Your task to perform on an android device: turn notification dots on Image 0: 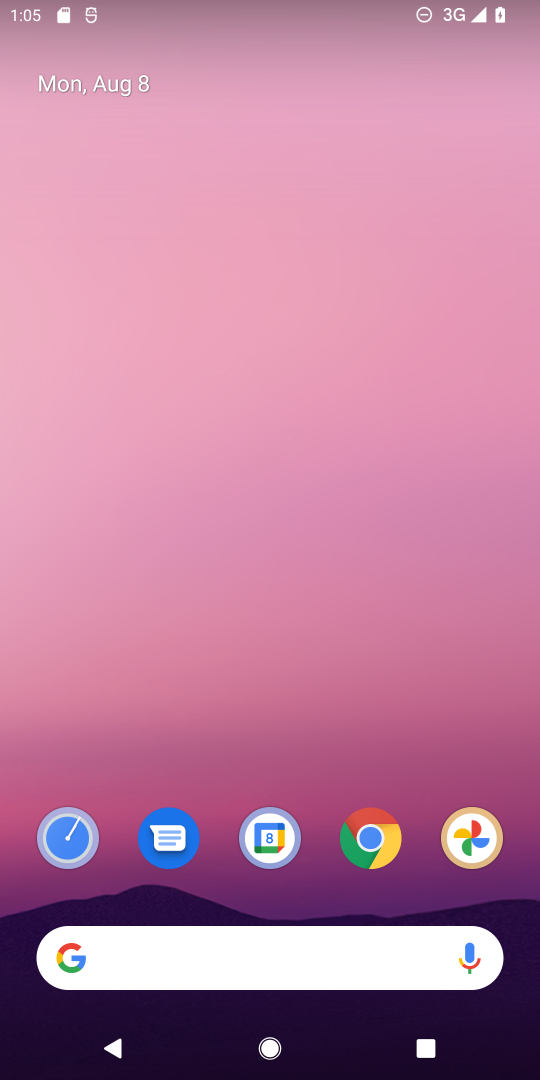
Step 0: press home button
Your task to perform on an android device: turn notification dots on Image 1: 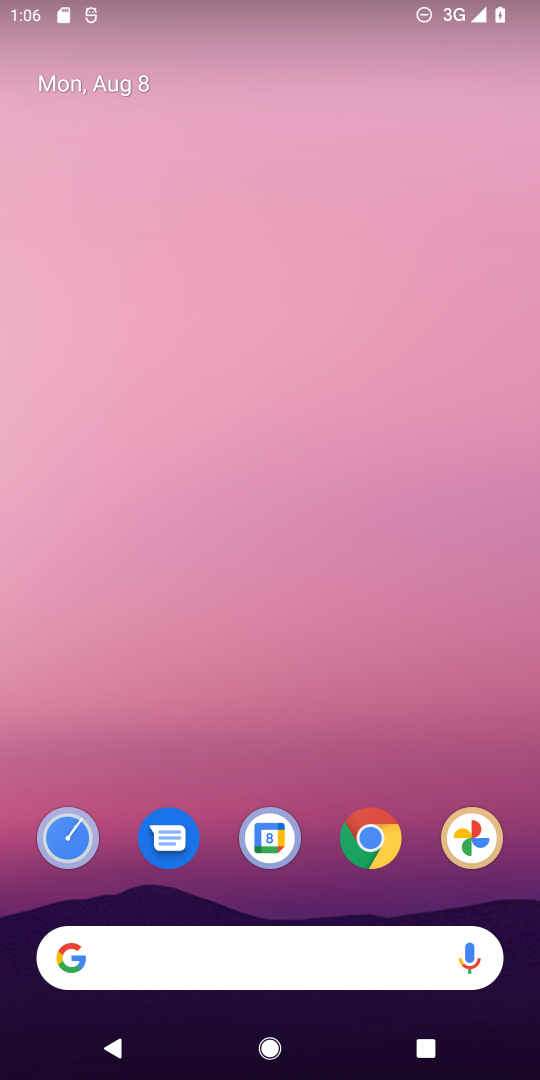
Step 1: press home button
Your task to perform on an android device: turn notification dots on Image 2: 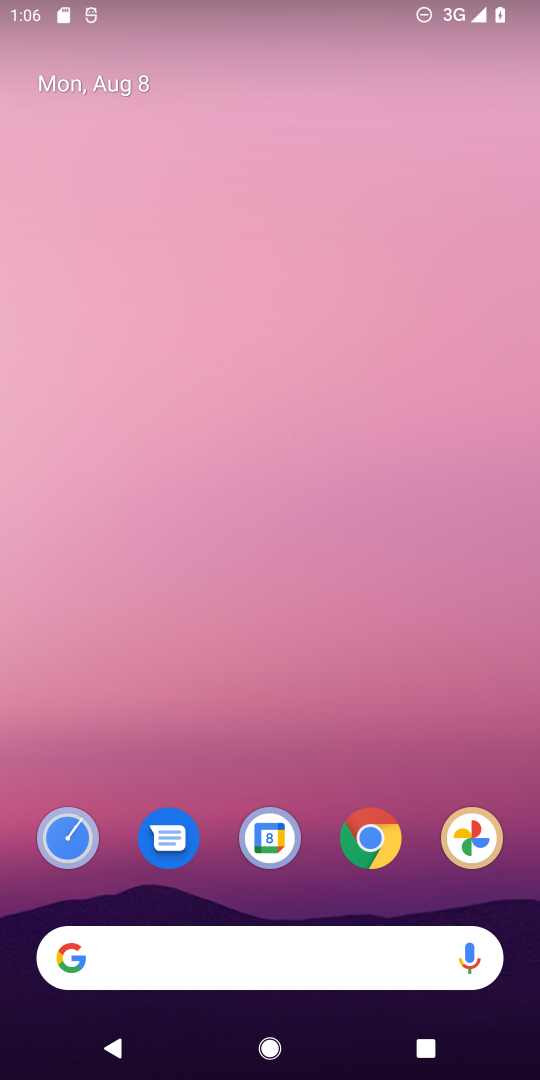
Step 2: drag from (217, 715) to (230, 8)
Your task to perform on an android device: turn notification dots on Image 3: 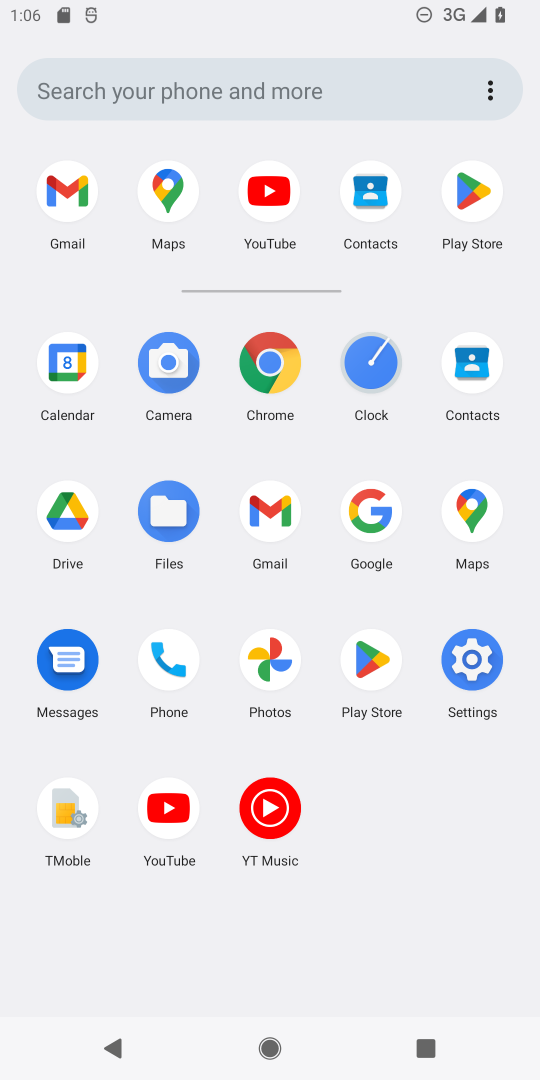
Step 3: click (473, 659)
Your task to perform on an android device: turn notification dots on Image 4: 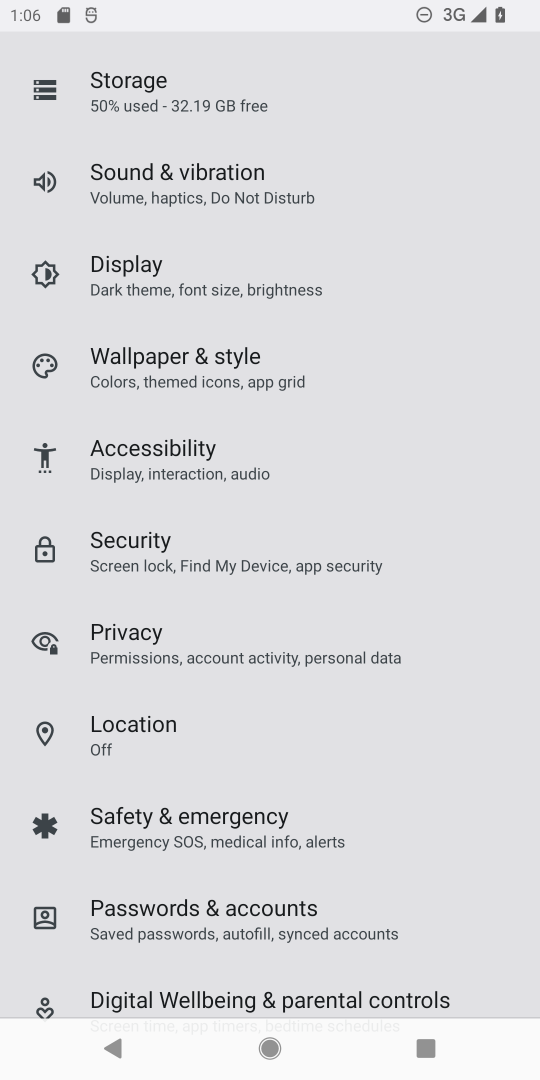
Step 4: drag from (374, 162) to (370, 836)
Your task to perform on an android device: turn notification dots on Image 5: 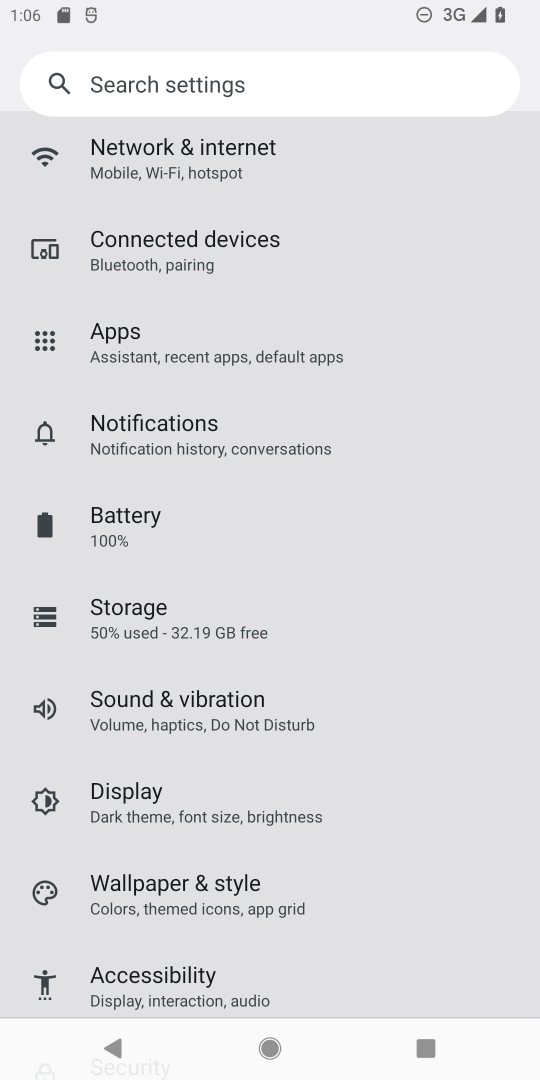
Step 5: click (164, 443)
Your task to perform on an android device: turn notification dots on Image 6: 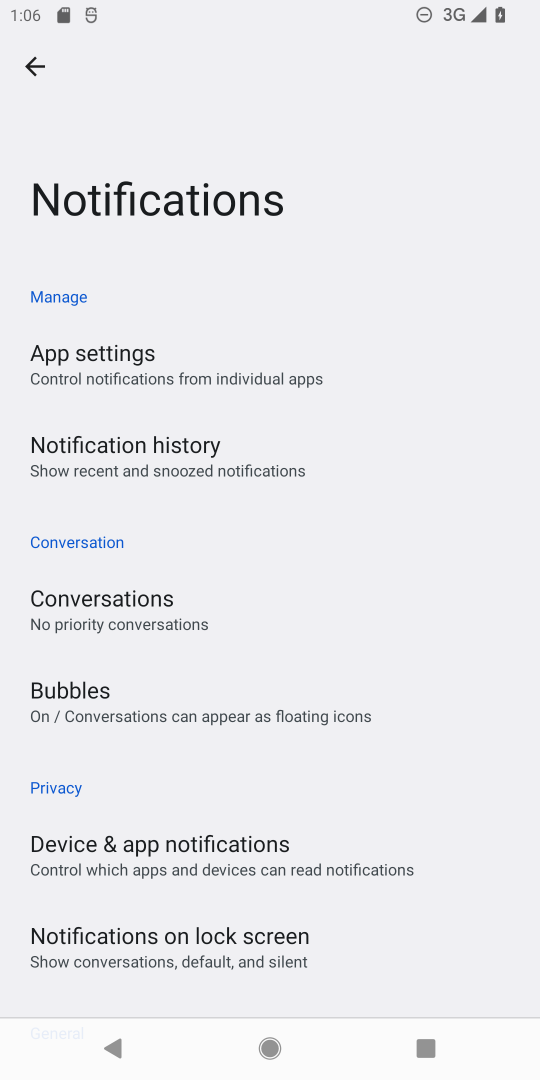
Step 6: task complete